Your task to perform on an android device: Open Android settings Image 0: 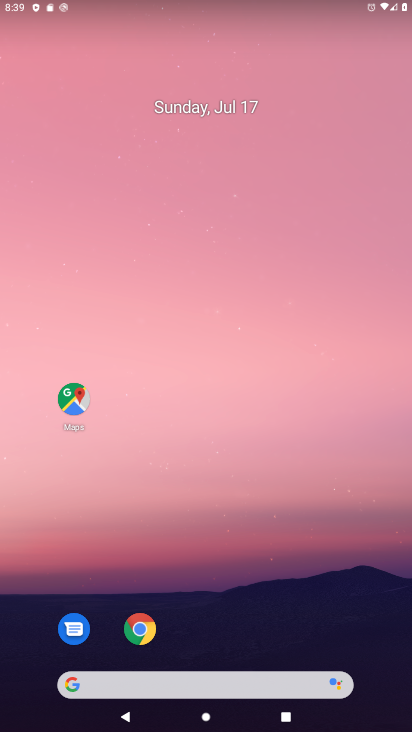
Step 0: drag from (240, 620) to (213, 164)
Your task to perform on an android device: Open Android settings Image 1: 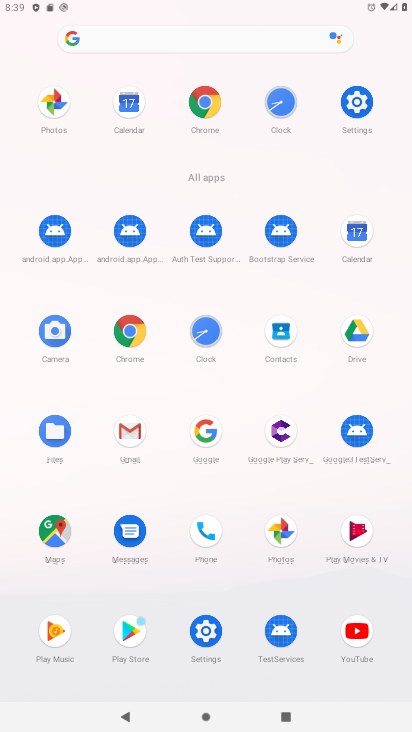
Step 1: click (346, 107)
Your task to perform on an android device: Open Android settings Image 2: 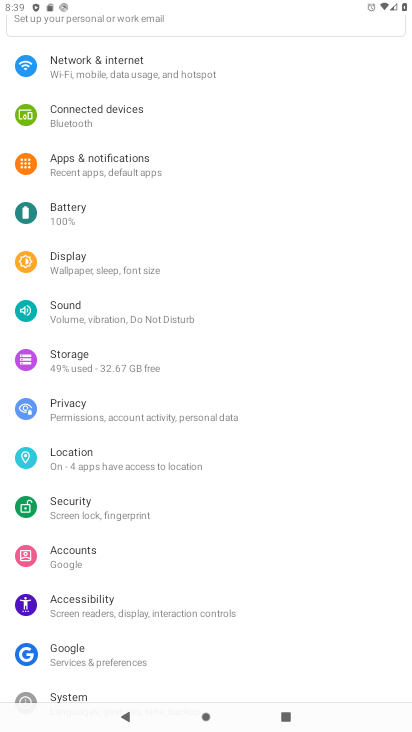
Step 2: drag from (193, 559) to (193, 324)
Your task to perform on an android device: Open Android settings Image 3: 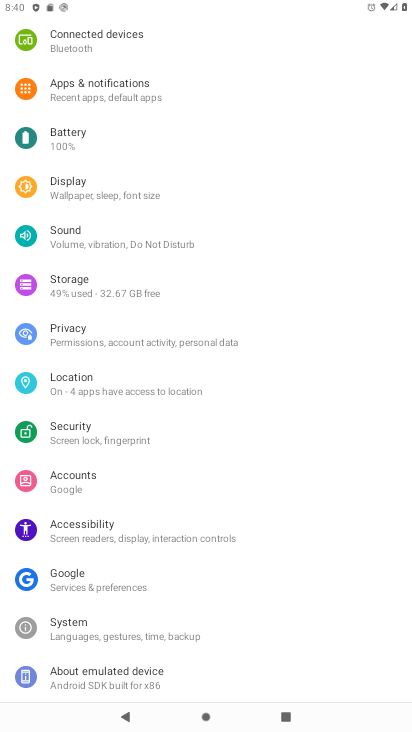
Step 3: click (86, 628)
Your task to perform on an android device: Open Android settings Image 4: 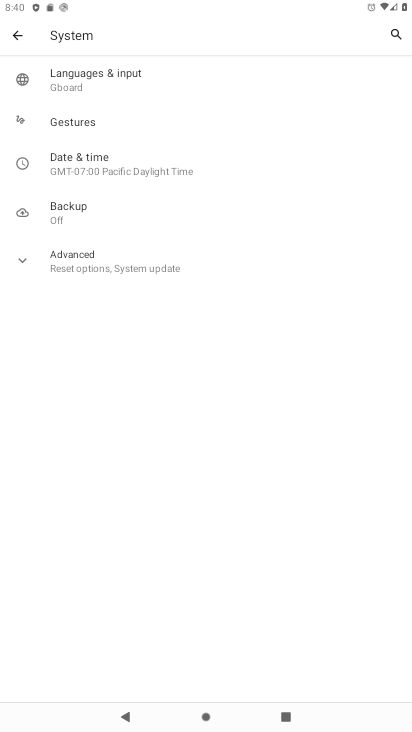
Step 4: task complete